Your task to perform on an android device: What is the news today? Image 0: 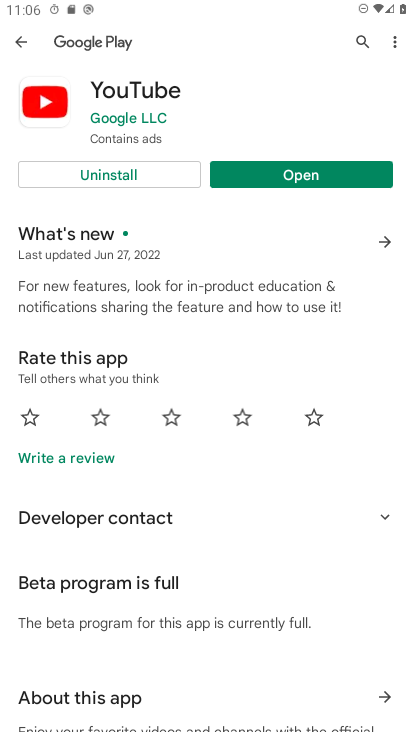
Step 0: press home button
Your task to perform on an android device: What is the news today? Image 1: 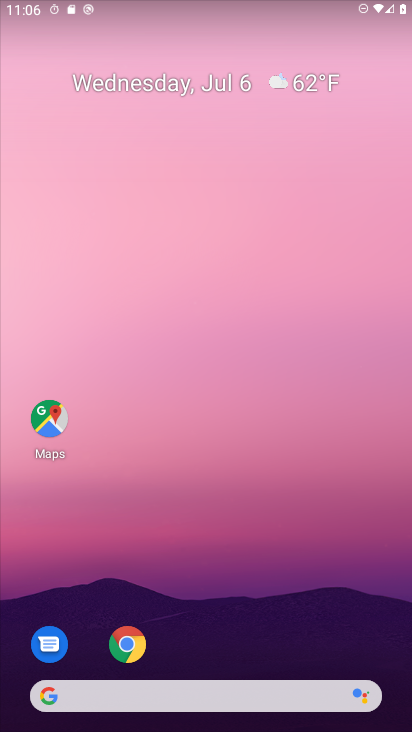
Step 1: click (46, 702)
Your task to perform on an android device: What is the news today? Image 2: 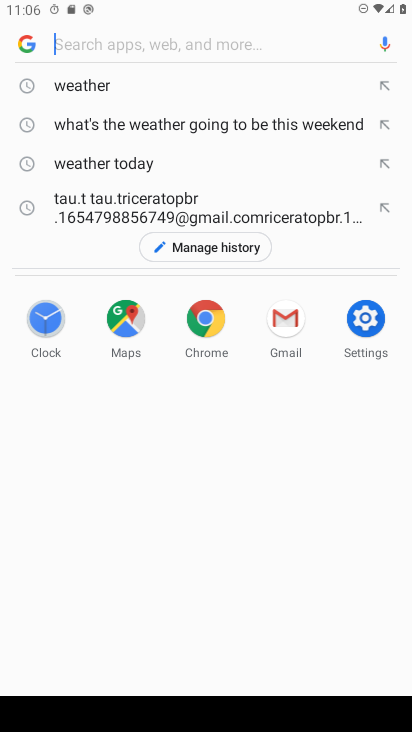
Step 2: type "news today?"
Your task to perform on an android device: What is the news today? Image 3: 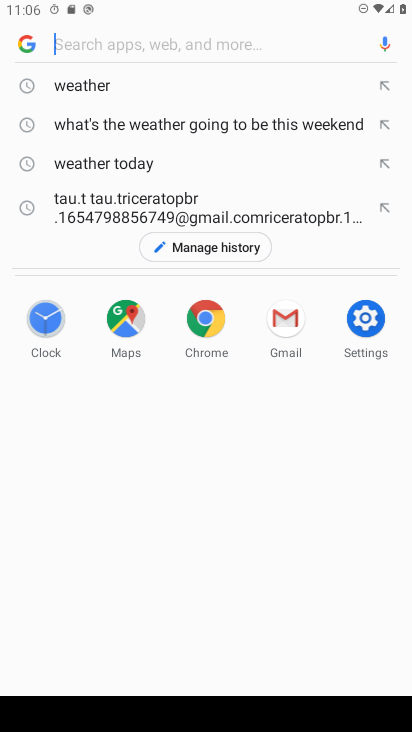
Step 3: click (144, 49)
Your task to perform on an android device: What is the news today? Image 4: 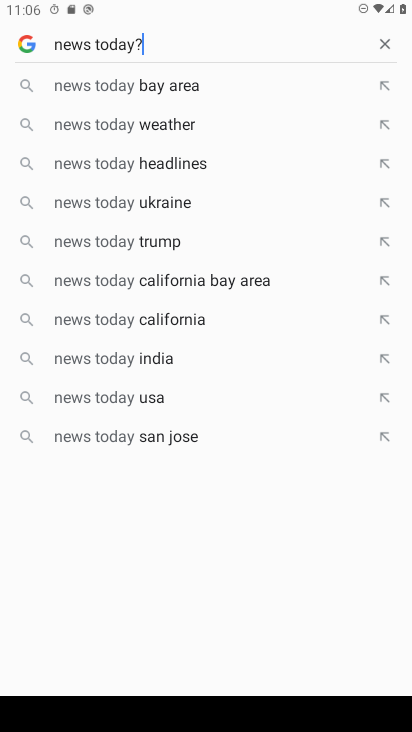
Step 4: type "news today"
Your task to perform on an android device: What is the news today? Image 5: 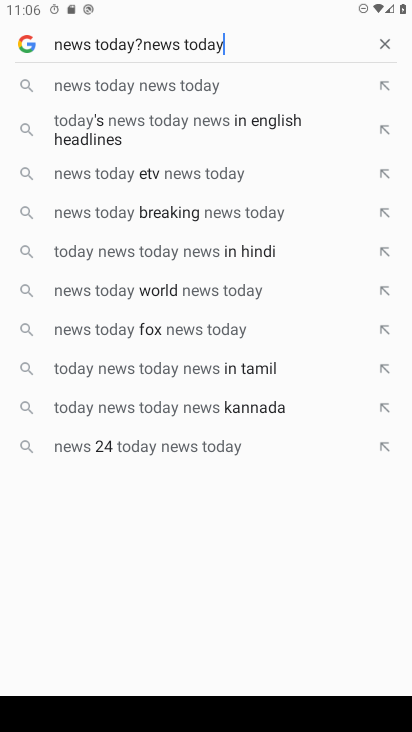
Step 5: click (386, 44)
Your task to perform on an android device: What is the news today? Image 6: 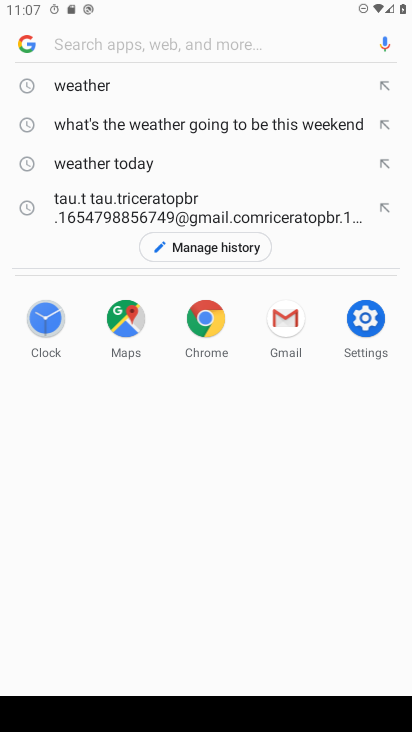
Step 6: type "news today"
Your task to perform on an android device: What is the news today? Image 7: 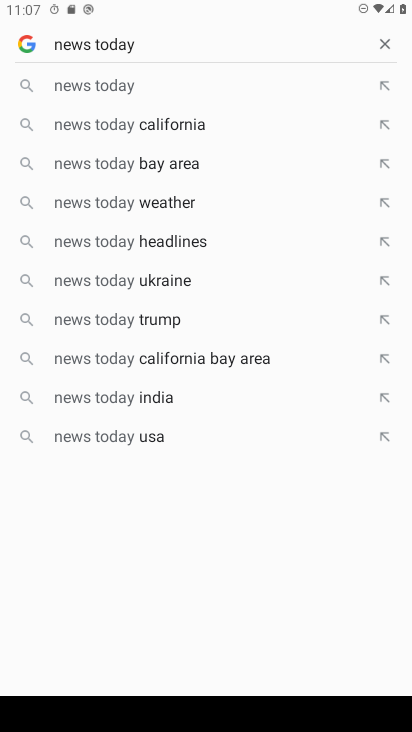
Step 7: click (112, 90)
Your task to perform on an android device: What is the news today? Image 8: 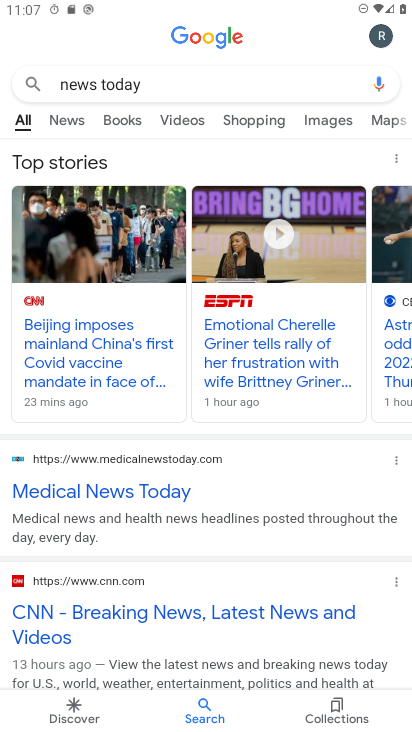
Step 8: task complete